Your task to perform on an android device: turn on improve location accuracy Image 0: 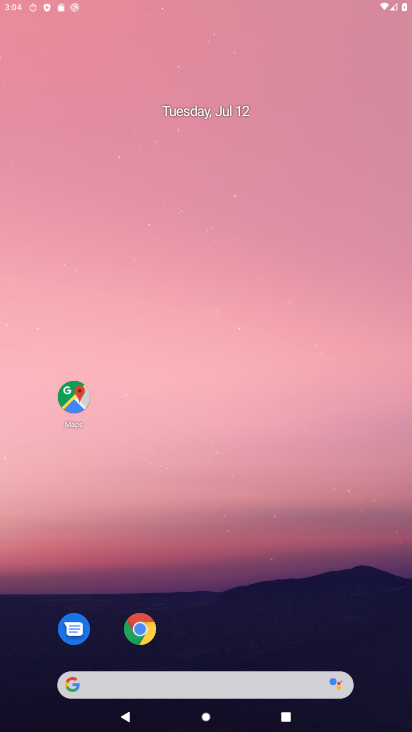
Step 0: click (292, 278)
Your task to perform on an android device: turn on improve location accuracy Image 1: 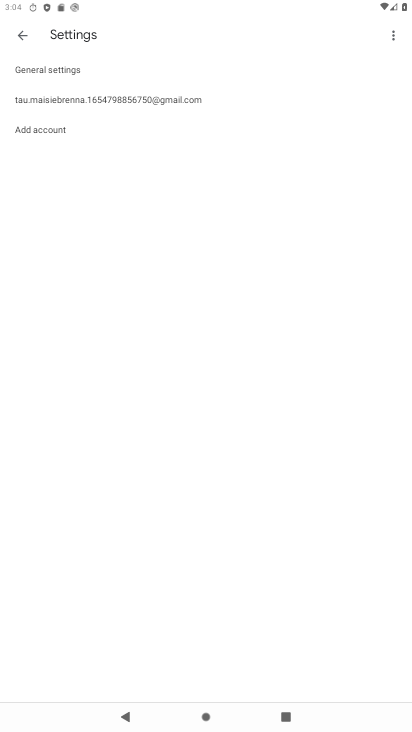
Step 1: press home button
Your task to perform on an android device: turn on improve location accuracy Image 2: 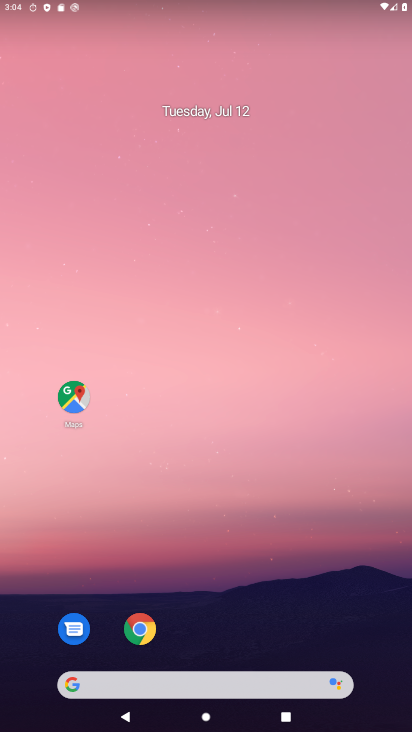
Step 2: drag from (278, 628) to (314, 139)
Your task to perform on an android device: turn on improve location accuracy Image 3: 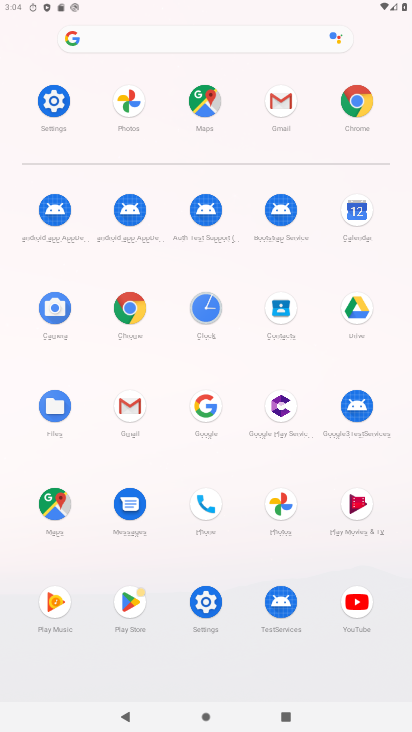
Step 3: click (217, 102)
Your task to perform on an android device: turn on improve location accuracy Image 4: 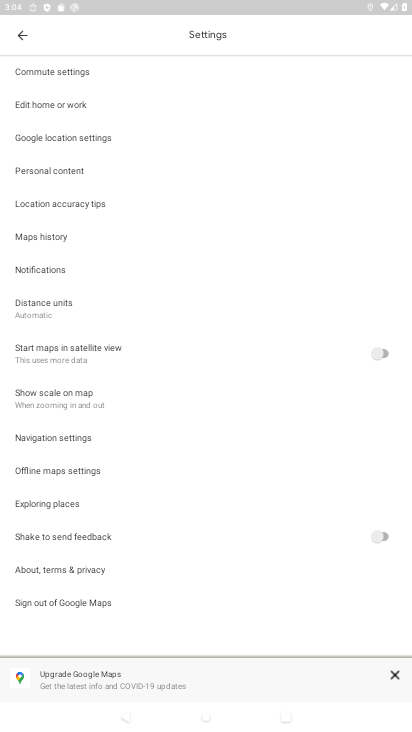
Step 4: click (28, 38)
Your task to perform on an android device: turn on improve location accuracy Image 5: 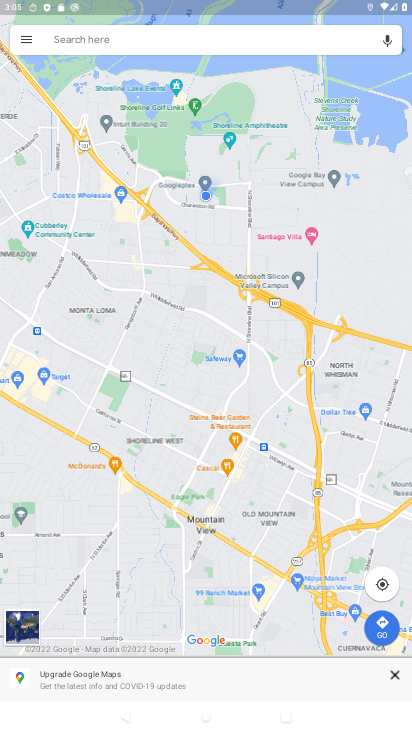
Step 5: click (29, 36)
Your task to perform on an android device: turn on improve location accuracy Image 6: 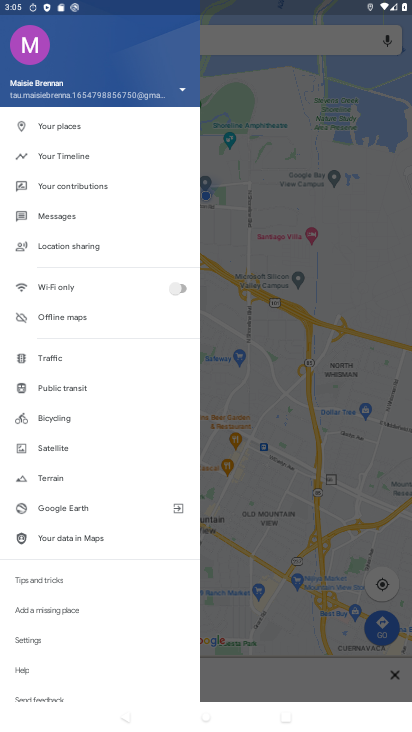
Step 6: click (53, 152)
Your task to perform on an android device: turn on improve location accuracy Image 7: 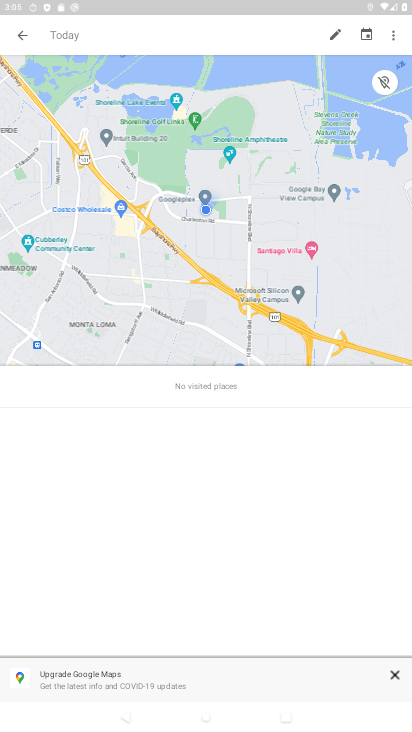
Step 7: click (395, 32)
Your task to perform on an android device: turn on improve location accuracy Image 8: 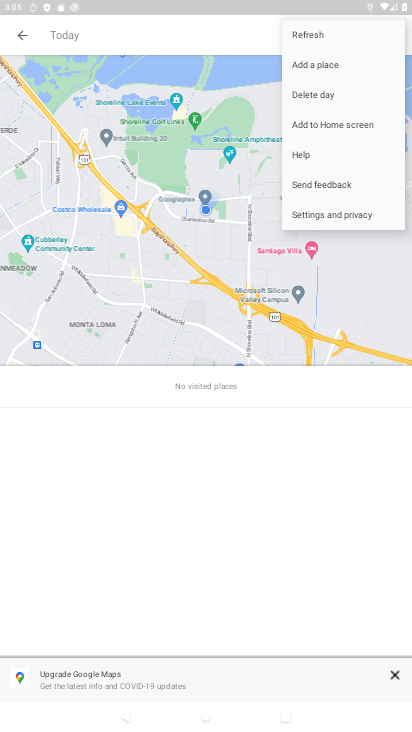
Step 8: click (326, 210)
Your task to perform on an android device: turn on improve location accuracy Image 9: 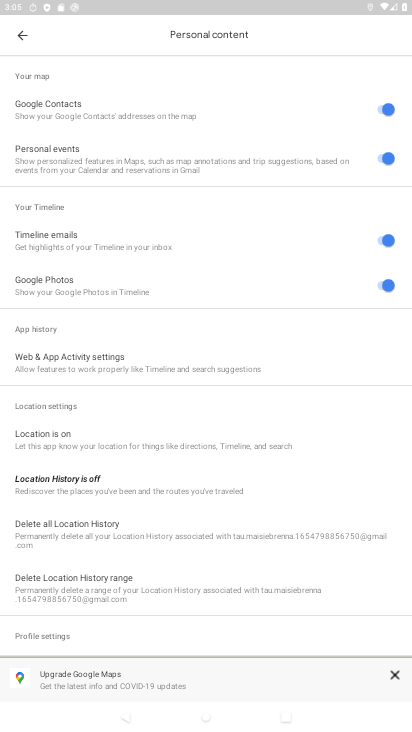
Step 9: click (157, 560)
Your task to perform on an android device: turn on improve location accuracy Image 10: 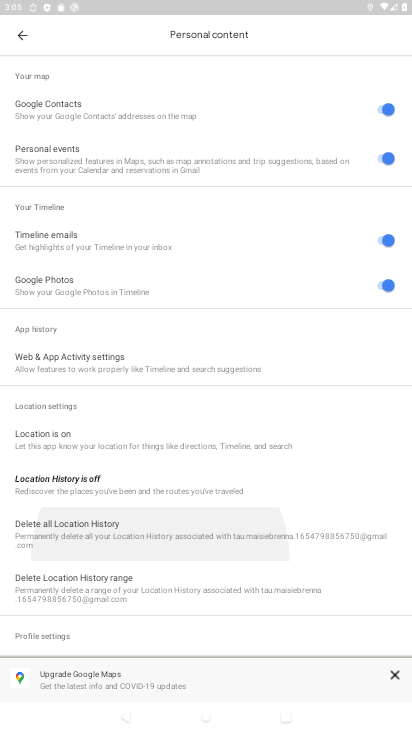
Step 10: drag from (211, 327) to (232, 228)
Your task to perform on an android device: turn on improve location accuracy Image 11: 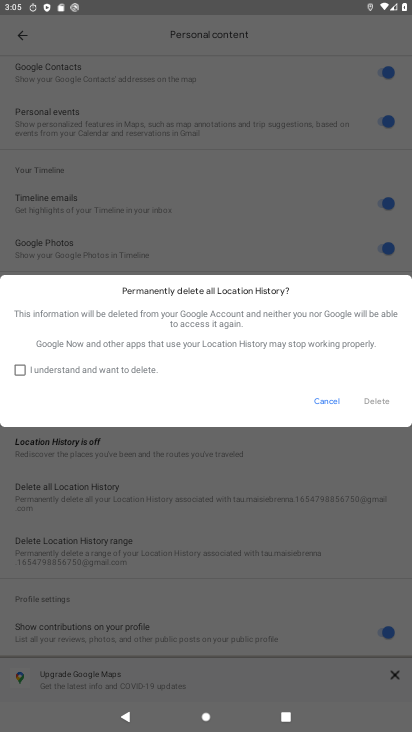
Step 11: click (326, 398)
Your task to perform on an android device: turn on improve location accuracy Image 12: 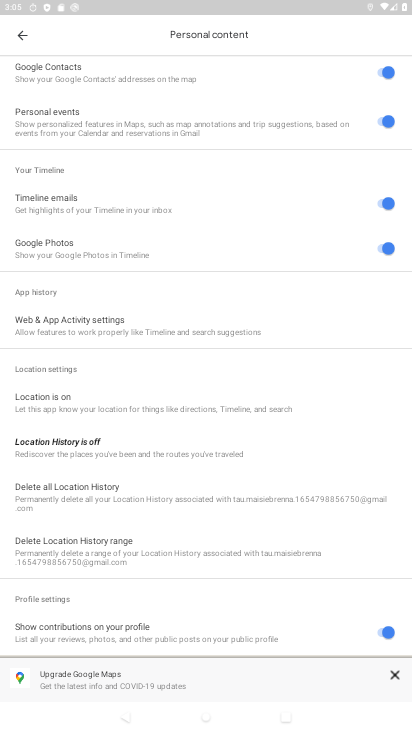
Step 12: press home button
Your task to perform on an android device: turn on improve location accuracy Image 13: 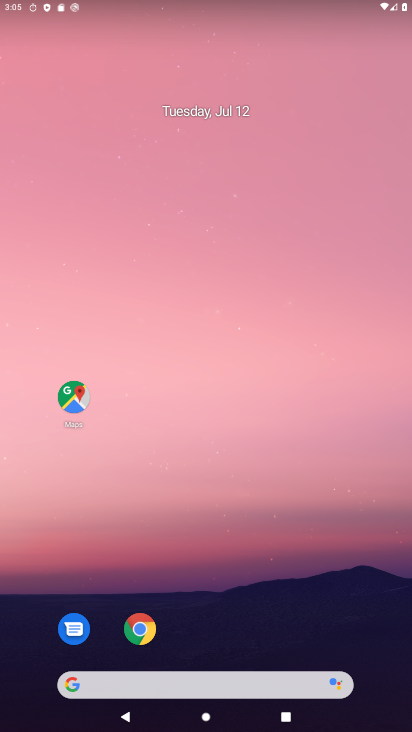
Step 13: drag from (270, 596) to (338, 68)
Your task to perform on an android device: turn on improve location accuracy Image 14: 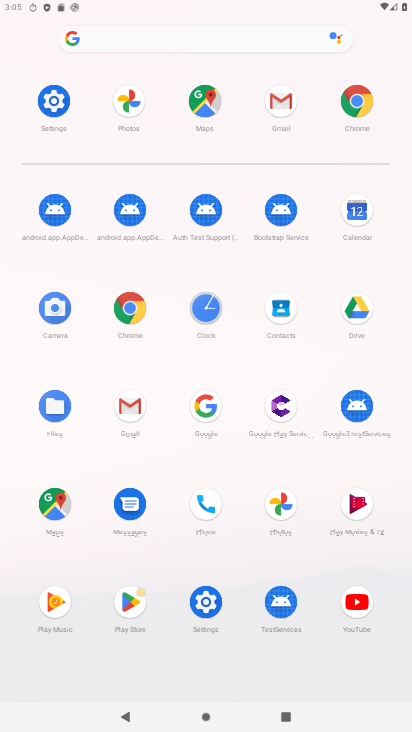
Step 14: click (206, 602)
Your task to perform on an android device: turn on improve location accuracy Image 15: 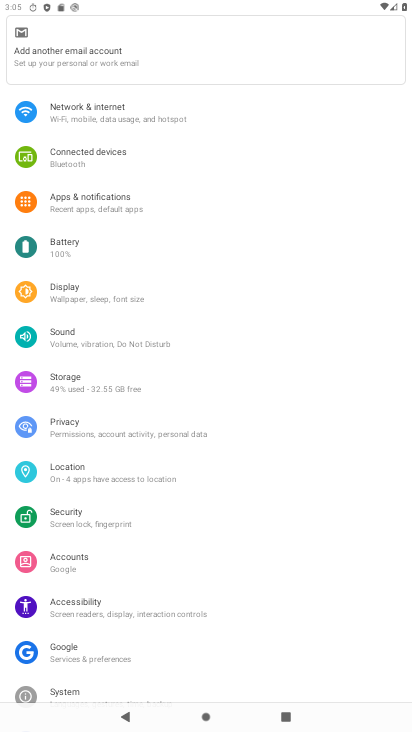
Step 15: drag from (123, 642) to (168, 465)
Your task to perform on an android device: turn on improve location accuracy Image 16: 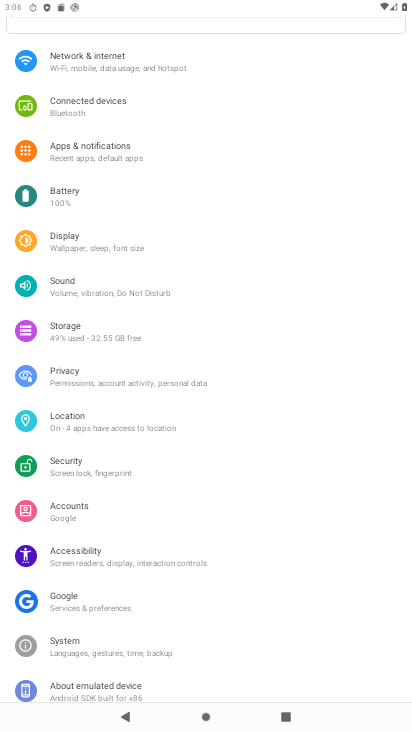
Step 16: click (60, 413)
Your task to perform on an android device: turn on improve location accuracy Image 17: 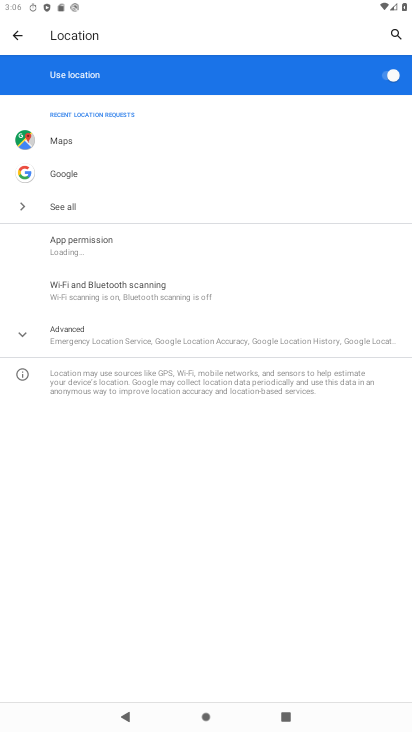
Step 17: click (181, 342)
Your task to perform on an android device: turn on improve location accuracy Image 18: 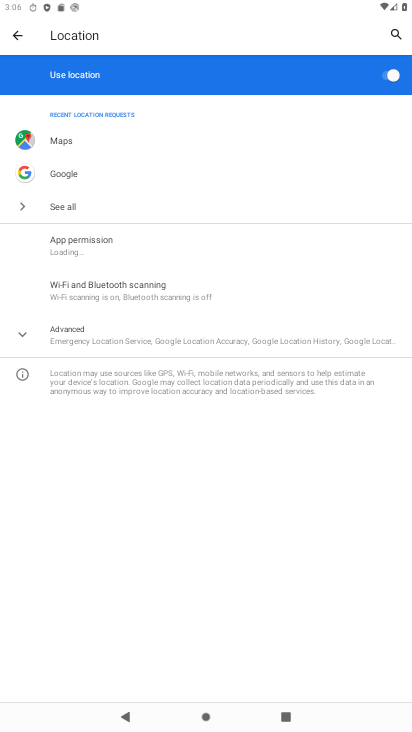
Step 18: click (181, 342)
Your task to perform on an android device: turn on improve location accuracy Image 19: 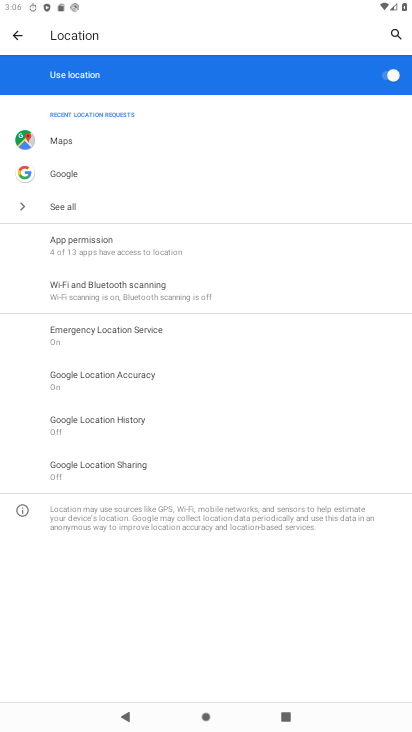
Step 19: click (114, 379)
Your task to perform on an android device: turn on improve location accuracy Image 20: 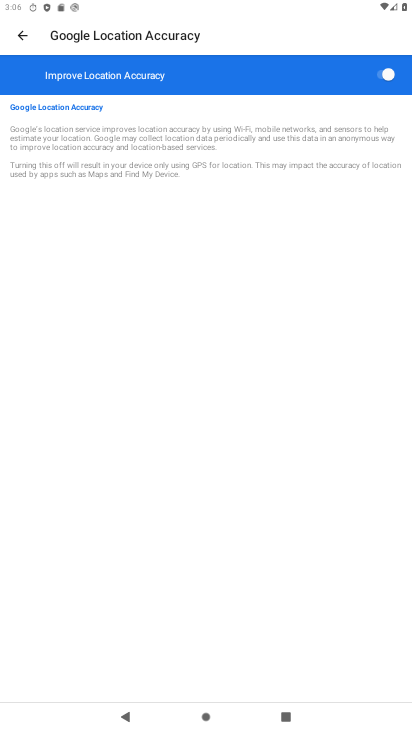
Step 20: task complete